Your task to perform on an android device: Show me the alarms in the clock app Image 0: 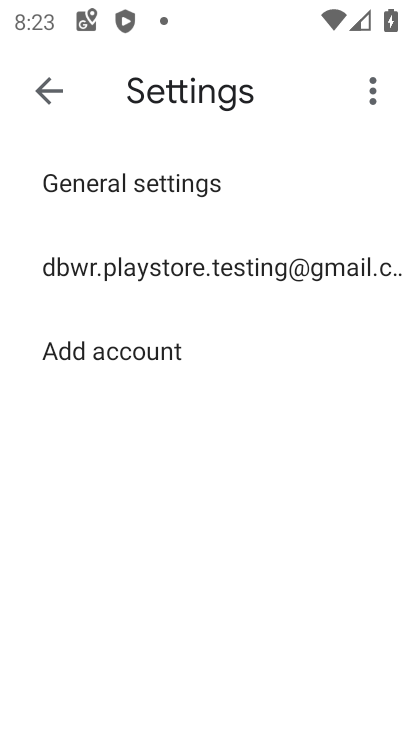
Step 0: press home button
Your task to perform on an android device: Show me the alarms in the clock app Image 1: 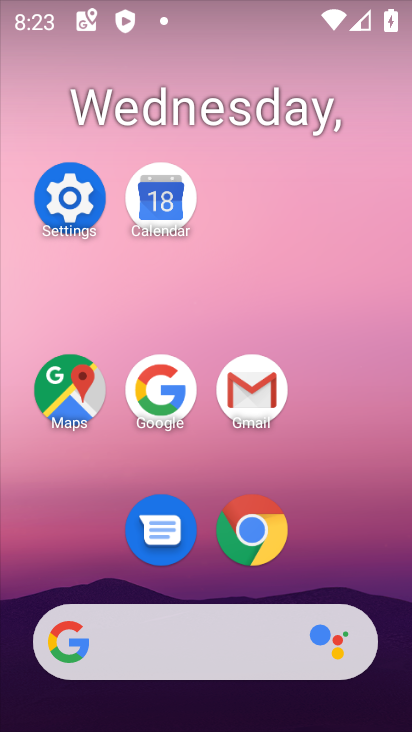
Step 1: drag from (319, 489) to (339, 172)
Your task to perform on an android device: Show me the alarms in the clock app Image 2: 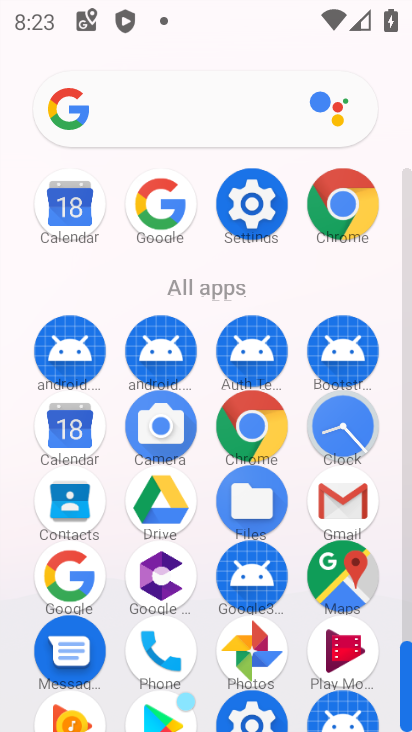
Step 2: drag from (333, 420) to (244, 230)
Your task to perform on an android device: Show me the alarms in the clock app Image 3: 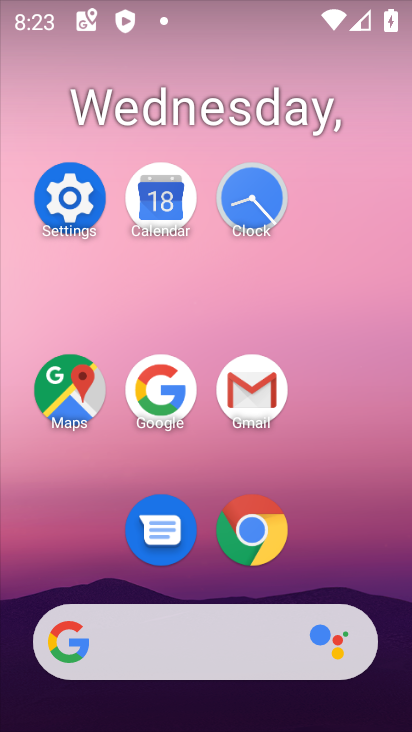
Step 3: click (238, 234)
Your task to perform on an android device: Show me the alarms in the clock app Image 4: 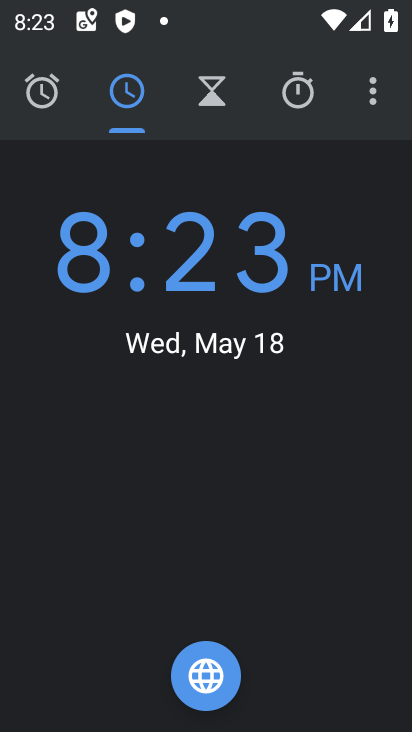
Step 4: click (51, 90)
Your task to perform on an android device: Show me the alarms in the clock app Image 5: 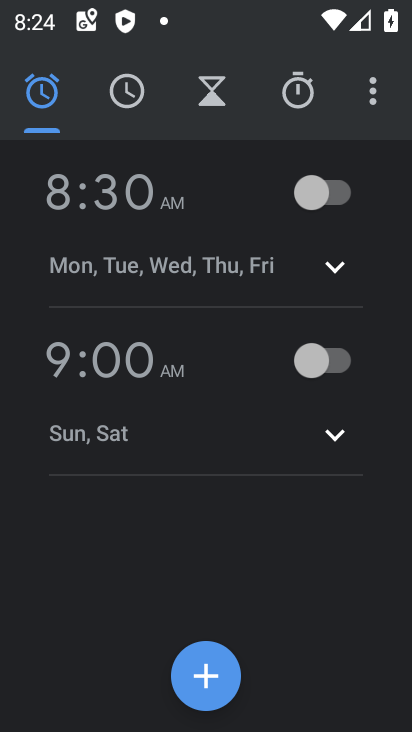
Step 5: task complete